Your task to perform on an android device: Set the phone to "Do not disturb". Image 0: 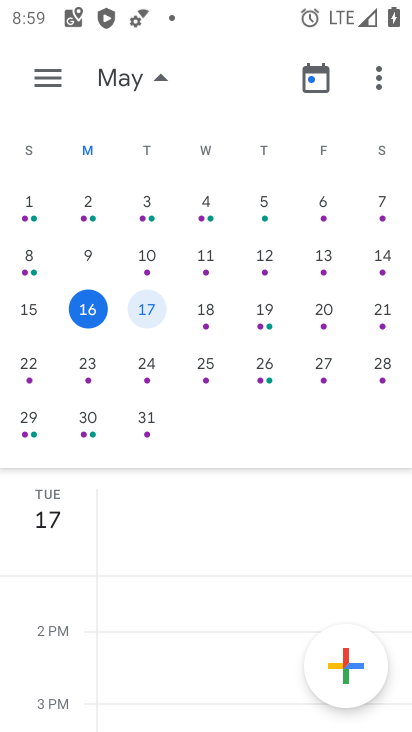
Step 0: press home button
Your task to perform on an android device: Set the phone to "Do not disturb". Image 1: 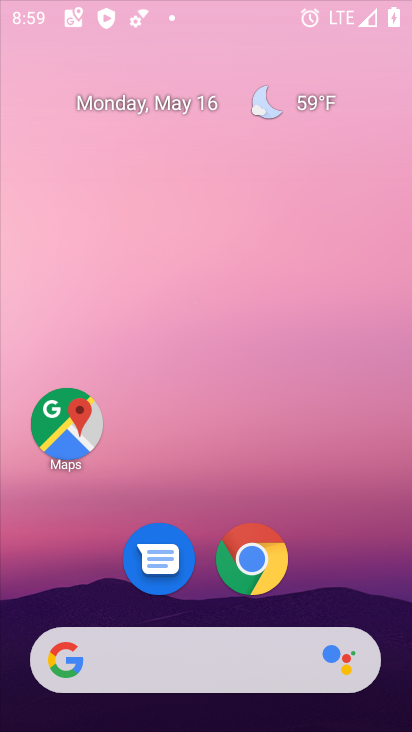
Step 1: drag from (323, 488) to (308, 99)
Your task to perform on an android device: Set the phone to "Do not disturb". Image 2: 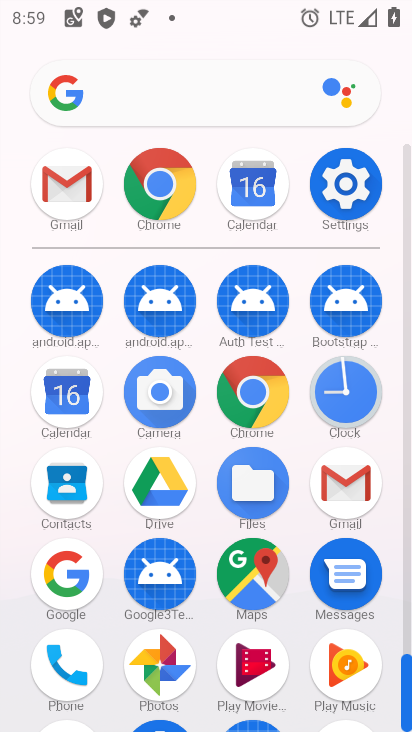
Step 2: click (342, 185)
Your task to perform on an android device: Set the phone to "Do not disturb". Image 3: 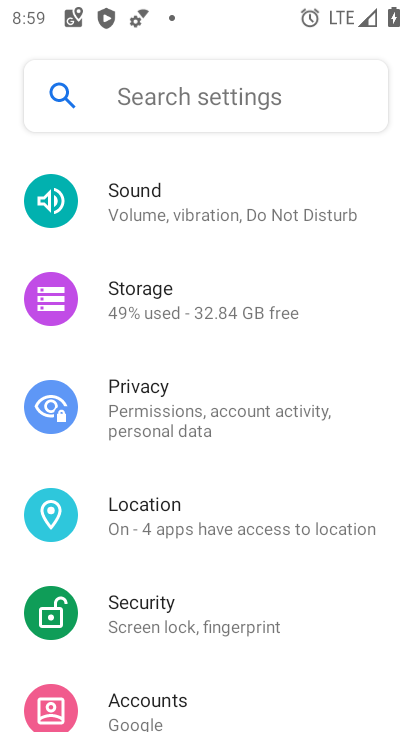
Step 3: drag from (342, 295) to (335, 596)
Your task to perform on an android device: Set the phone to "Do not disturb". Image 4: 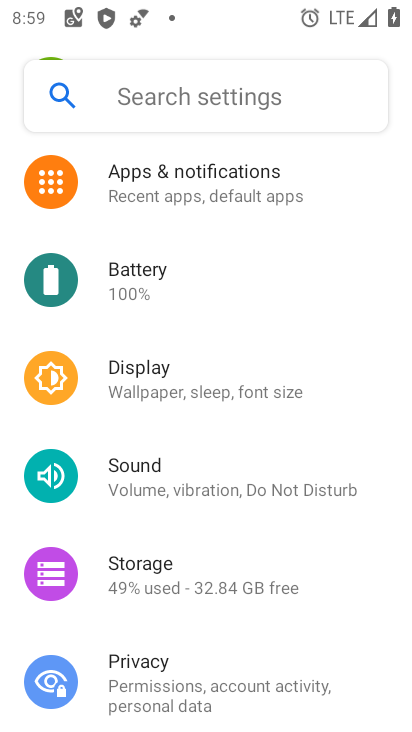
Step 4: click (271, 497)
Your task to perform on an android device: Set the phone to "Do not disturb". Image 5: 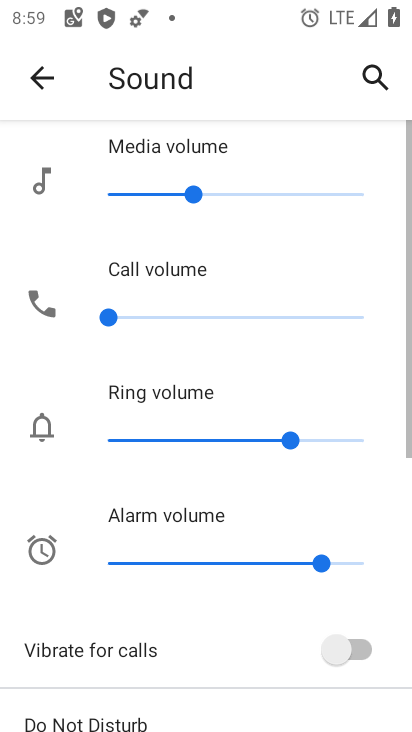
Step 5: drag from (234, 612) to (309, 275)
Your task to perform on an android device: Set the phone to "Do not disturb". Image 6: 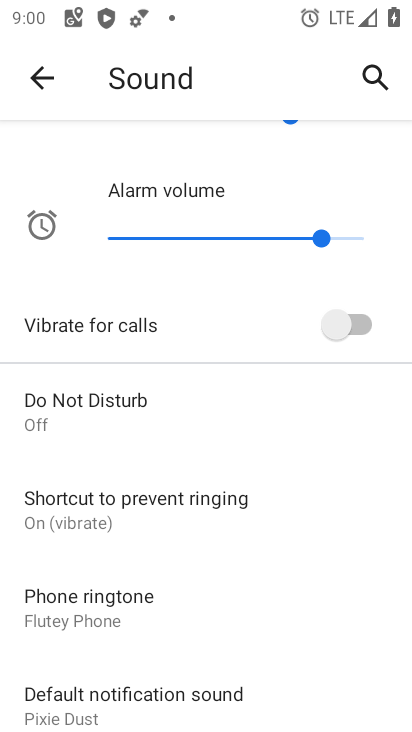
Step 6: click (120, 400)
Your task to perform on an android device: Set the phone to "Do not disturb". Image 7: 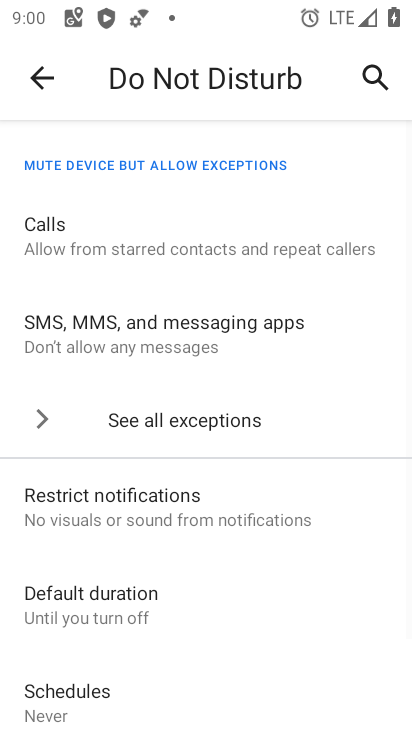
Step 7: drag from (148, 648) to (254, 261)
Your task to perform on an android device: Set the phone to "Do not disturb". Image 8: 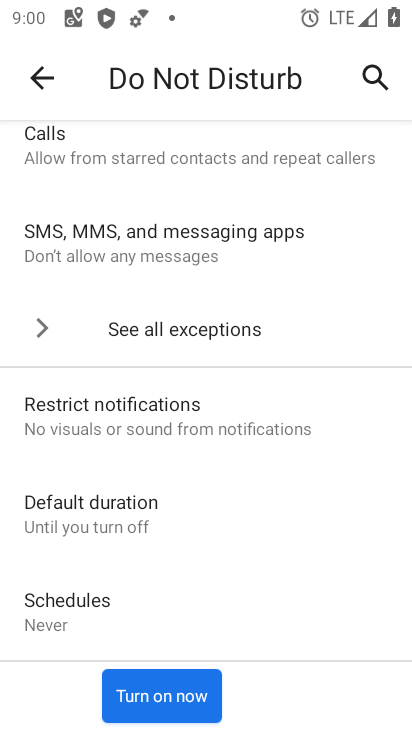
Step 8: click (199, 684)
Your task to perform on an android device: Set the phone to "Do not disturb". Image 9: 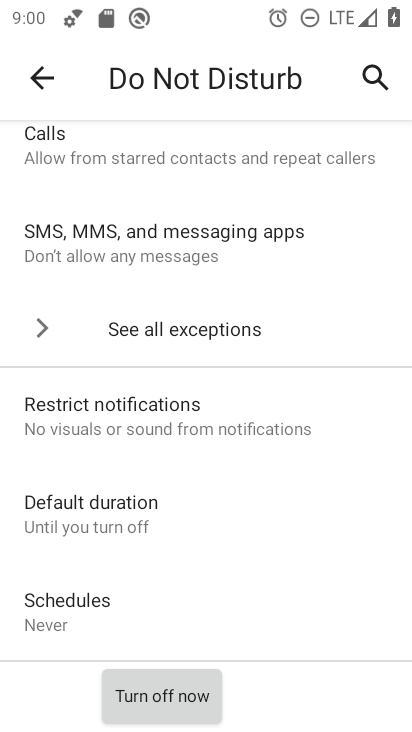
Step 9: task complete